Your task to perform on an android device: Search for a dining table on Crate & Barrel Image 0: 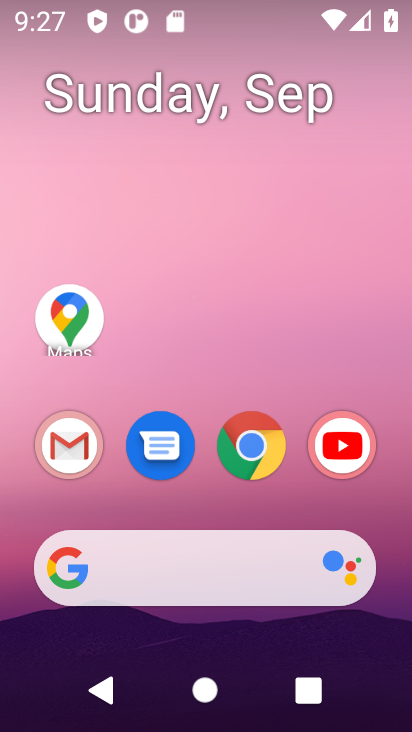
Step 0: drag from (202, 462) to (160, 18)
Your task to perform on an android device: Search for a dining table on Crate & Barrel Image 1: 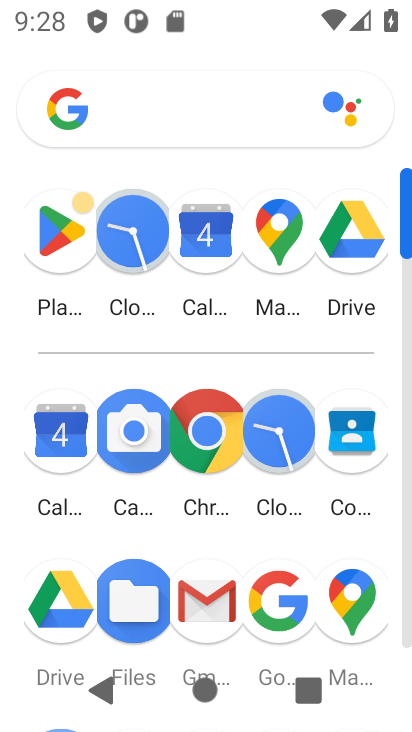
Step 1: click (197, 445)
Your task to perform on an android device: Search for a dining table on Crate & Barrel Image 2: 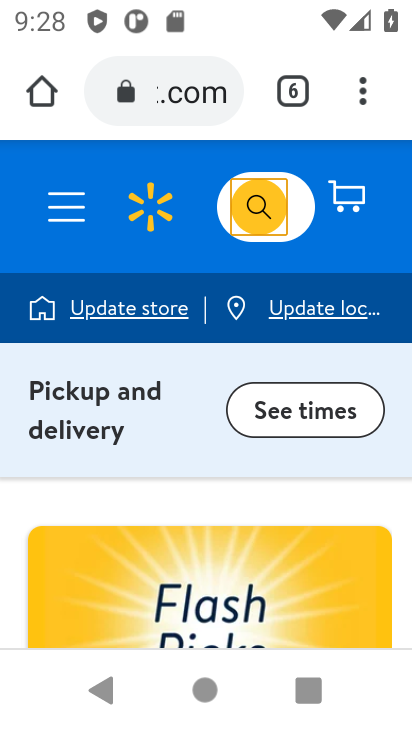
Step 2: click (189, 89)
Your task to perform on an android device: Search for a dining table on Crate & Barrel Image 3: 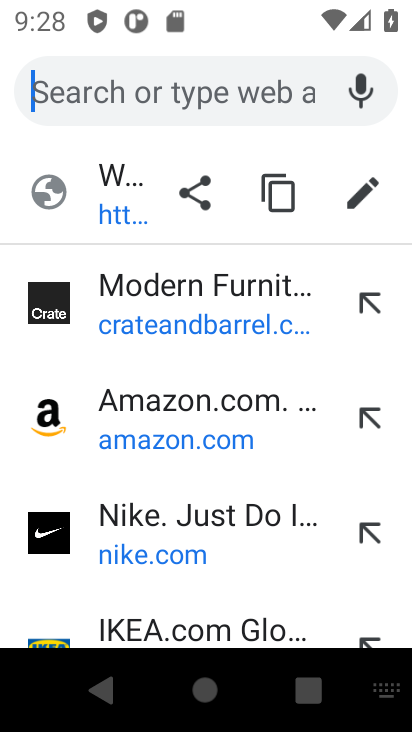
Step 3: type "Crate & Barrel"
Your task to perform on an android device: Search for a dining table on Crate & Barrel Image 4: 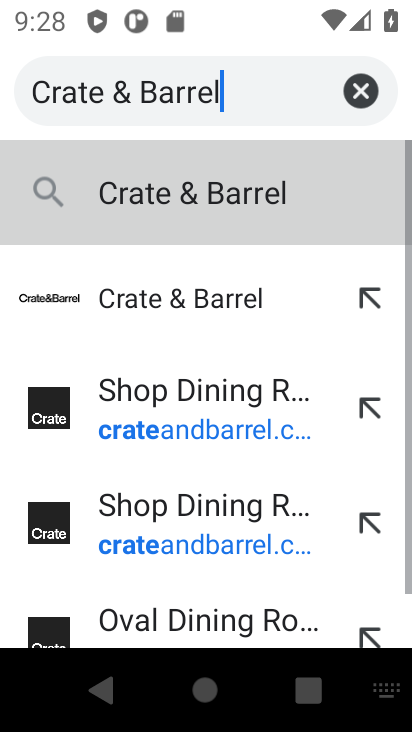
Step 4: press enter
Your task to perform on an android device: Search for a dining table on Crate & Barrel Image 5: 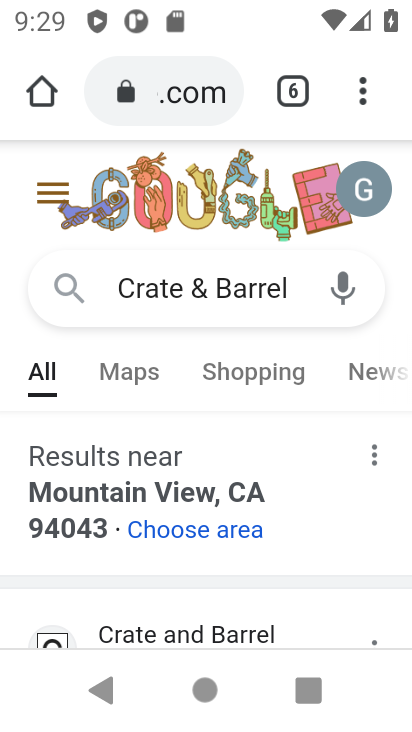
Step 5: drag from (148, 533) to (232, 243)
Your task to perform on an android device: Search for a dining table on Crate & Barrel Image 6: 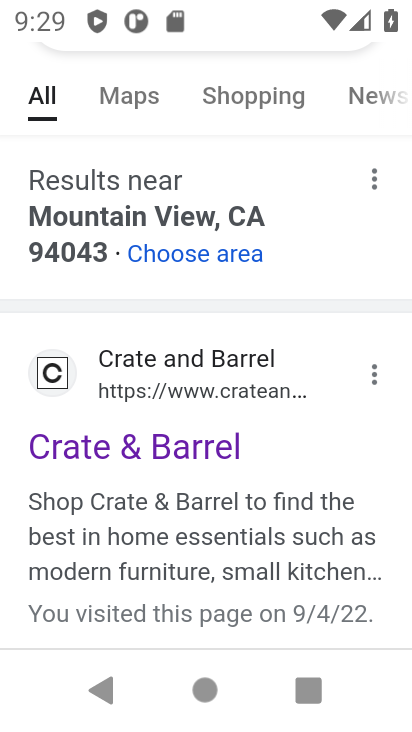
Step 6: click (176, 448)
Your task to perform on an android device: Search for a dining table on Crate & Barrel Image 7: 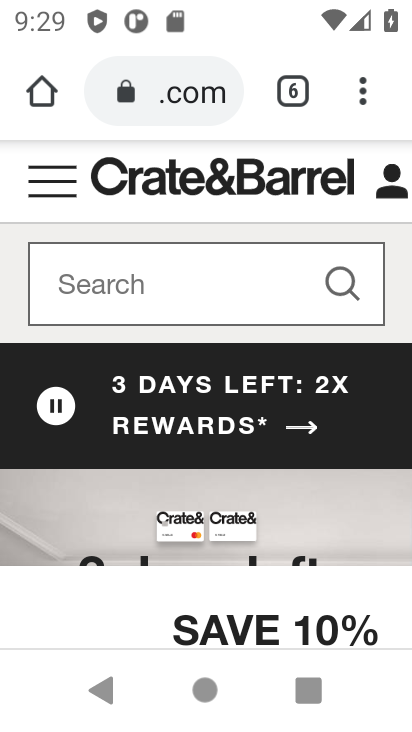
Step 7: click (232, 284)
Your task to perform on an android device: Search for a dining table on Crate & Barrel Image 8: 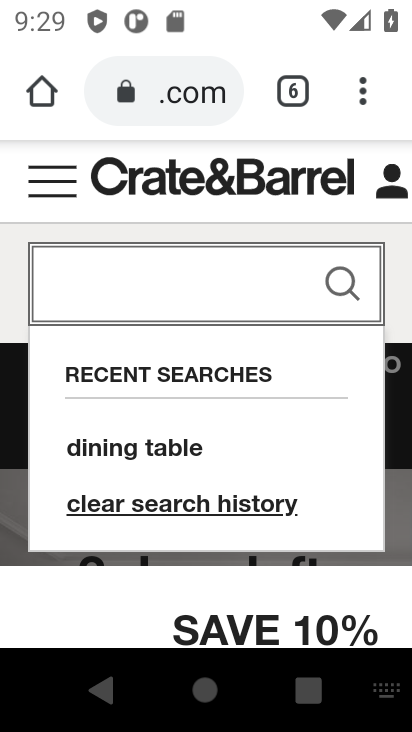
Step 8: press enter
Your task to perform on an android device: Search for a dining table on Crate & Barrel Image 9: 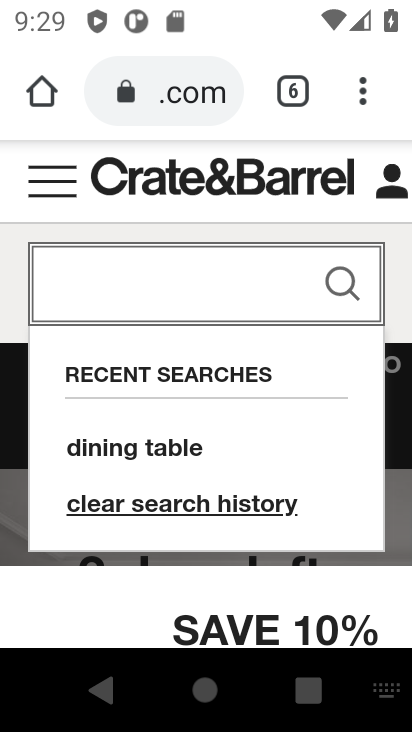
Step 9: type "dining table"
Your task to perform on an android device: Search for a dining table on Crate & Barrel Image 10: 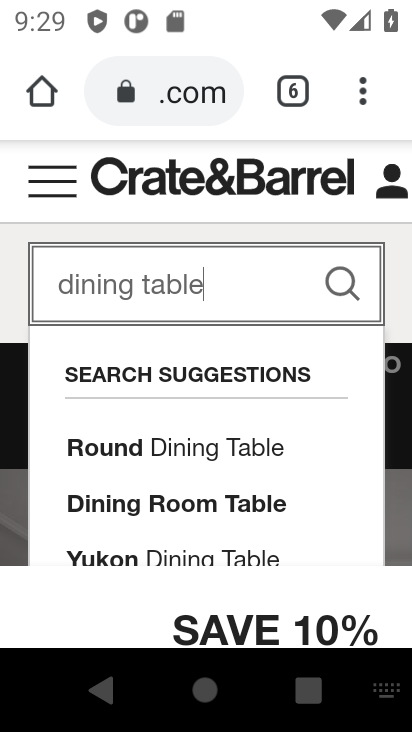
Step 10: press enter
Your task to perform on an android device: Search for a dining table on Crate & Barrel Image 11: 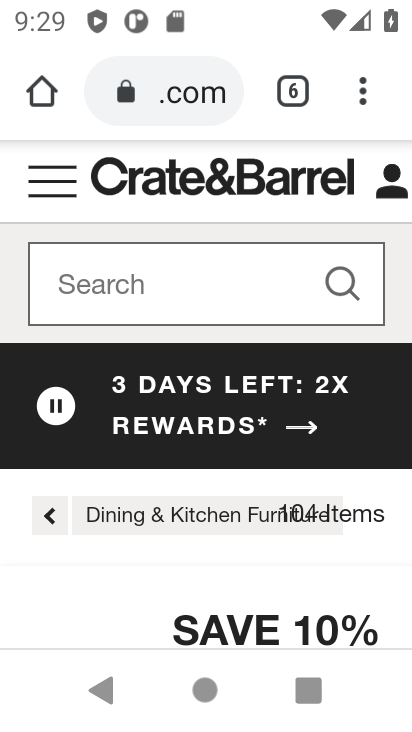
Step 11: drag from (318, 436) to (326, 301)
Your task to perform on an android device: Search for a dining table on Crate & Barrel Image 12: 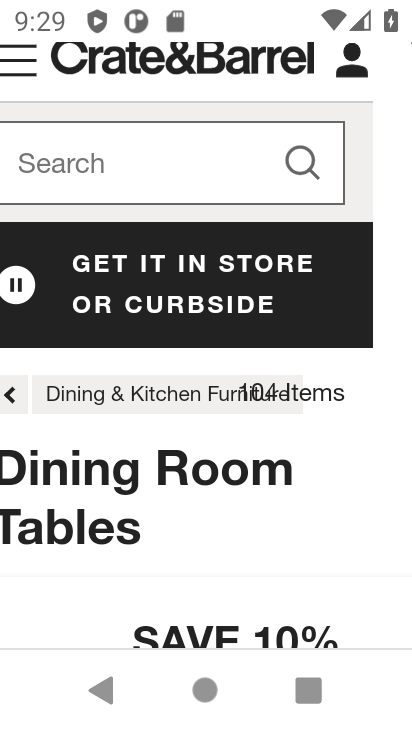
Step 12: drag from (309, 313) to (335, 245)
Your task to perform on an android device: Search for a dining table on Crate & Barrel Image 13: 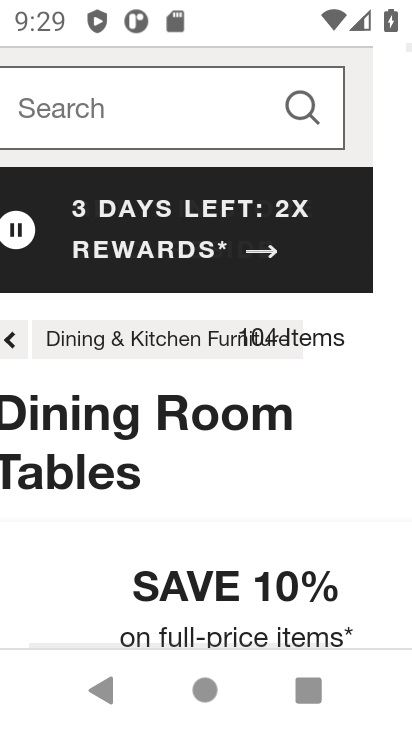
Step 13: drag from (276, 586) to (303, 241)
Your task to perform on an android device: Search for a dining table on Crate & Barrel Image 14: 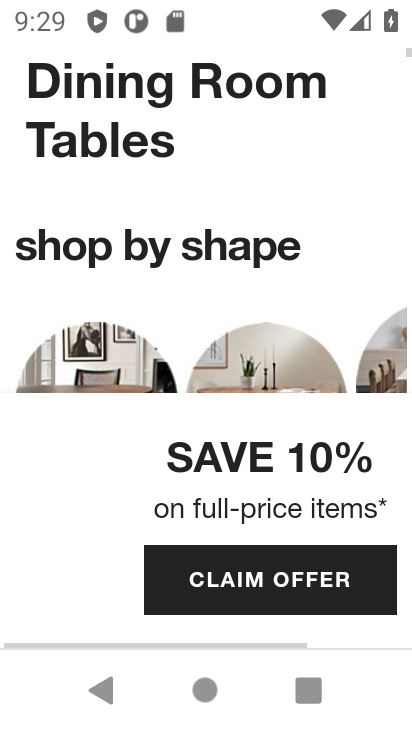
Step 14: drag from (258, 601) to (345, 217)
Your task to perform on an android device: Search for a dining table on Crate & Barrel Image 15: 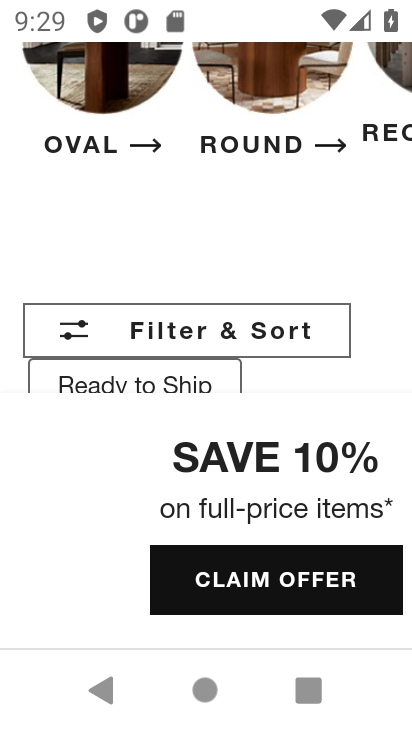
Step 15: drag from (354, 181) to (226, 310)
Your task to perform on an android device: Search for a dining table on Crate & Barrel Image 16: 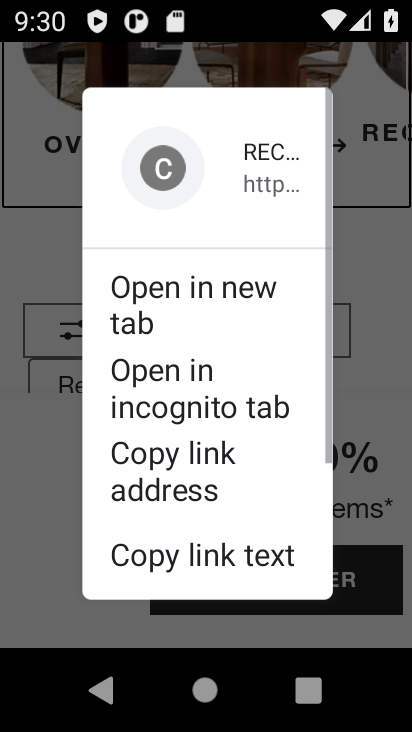
Step 16: drag from (77, 576) to (193, 293)
Your task to perform on an android device: Search for a dining table on Crate & Barrel Image 17: 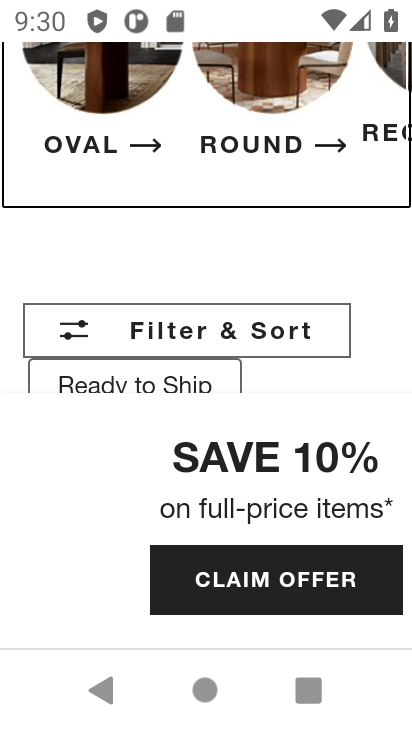
Step 17: drag from (270, 419) to (298, 266)
Your task to perform on an android device: Search for a dining table on Crate & Barrel Image 18: 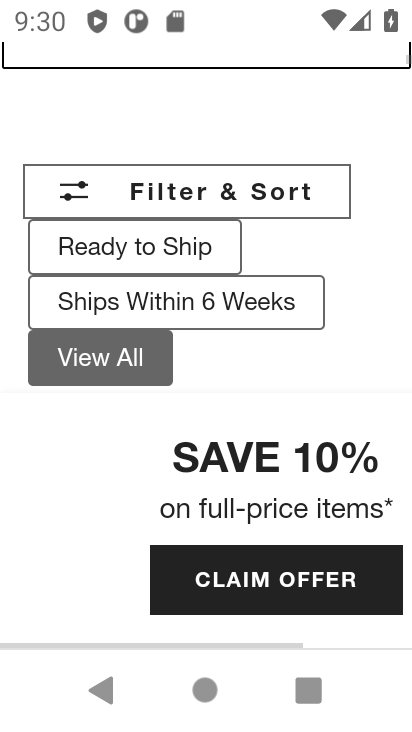
Step 18: click (120, 362)
Your task to perform on an android device: Search for a dining table on Crate & Barrel Image 19: 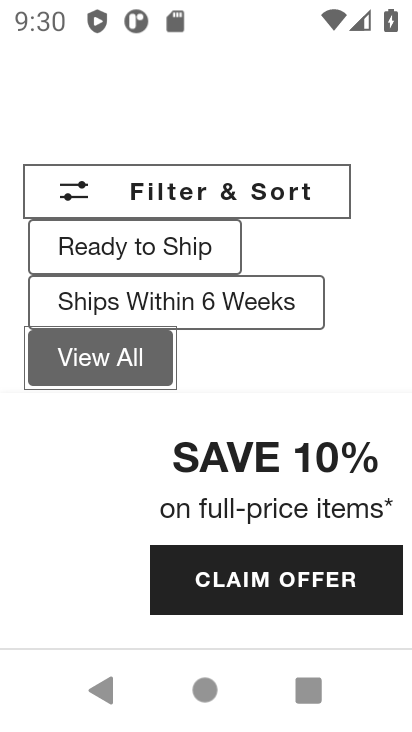
Step 19: click (120, 363)
Your task to perform on an android device: Search for a dining table on Crate & Barrel Image 20: 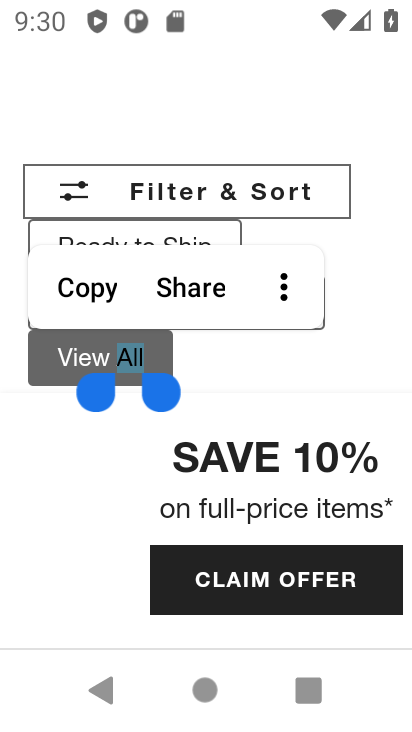
Step 20: click (93, 352)
Your task to perform on an android device: Search for a dining table on Crate & Barrel Image 21: 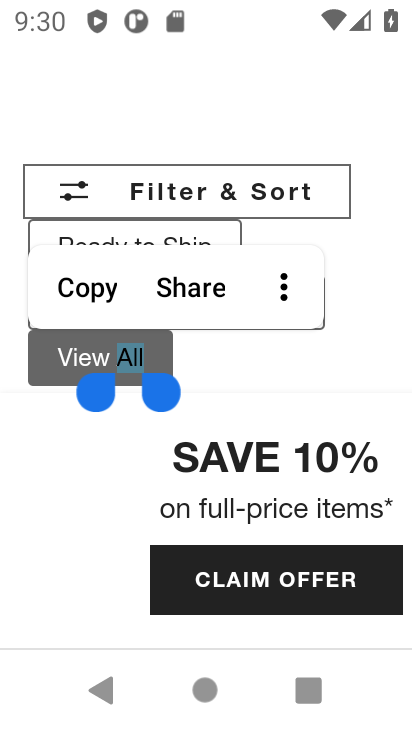
Step 21: click (86, 358)
Your task to perform on an android device: Search for a dining table on Crate & Barrel Image 22: 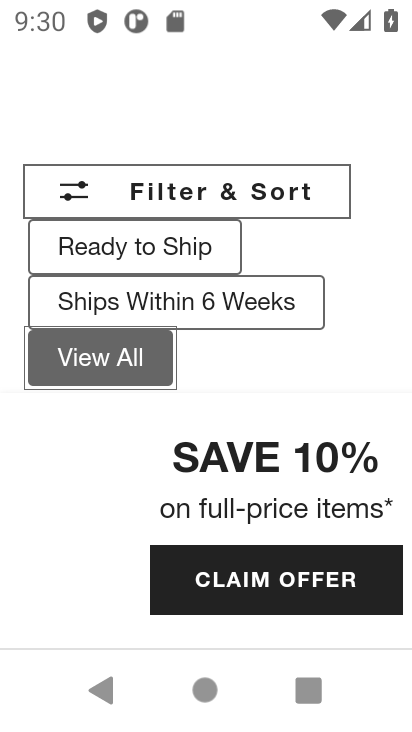
Step 22: click (199, 226)
Your task to perform on an android device: Search for a dining table on Crate & Barrel Image 23: 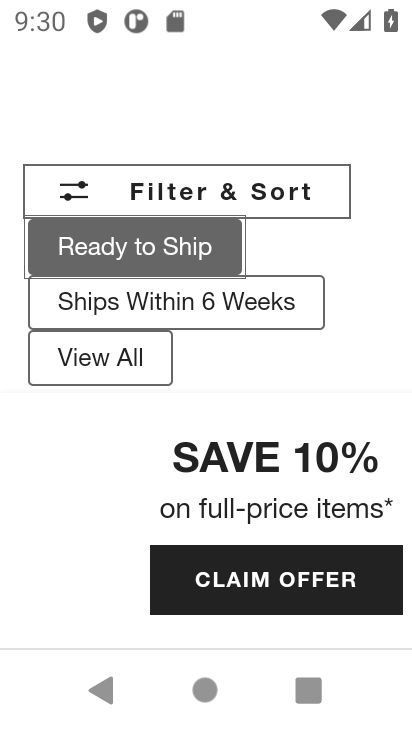
Step 23: drag from (266, 108) to (303, 541)
Your task to perform on an android device: Search for a dining table on Crate & Barrel Image 24: 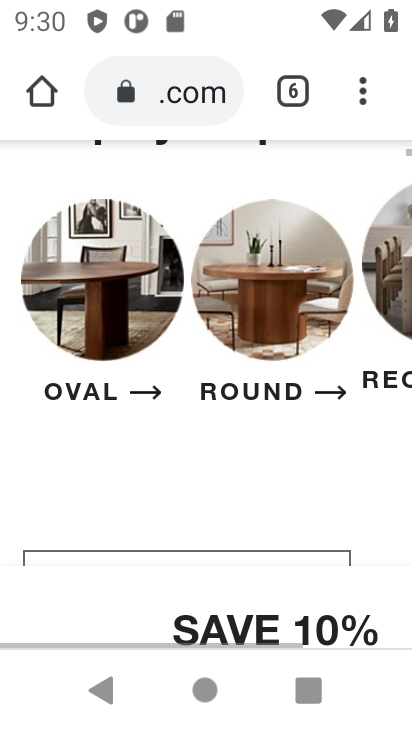
Step 24: drag from (255, 145) to (268, 442)
Your task to perform on an android device: Search for a dining table on Crate & Barrel Image 25: 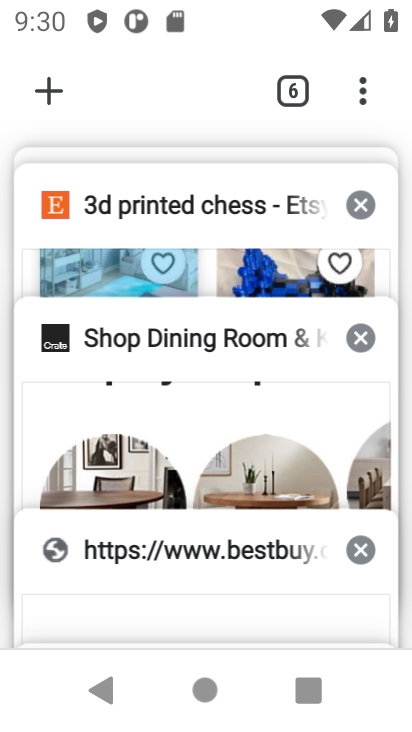
Step 25: click (137, 397)
Your task to perform on an android device: Search for a dining table on Crate & Barrel Image 26: 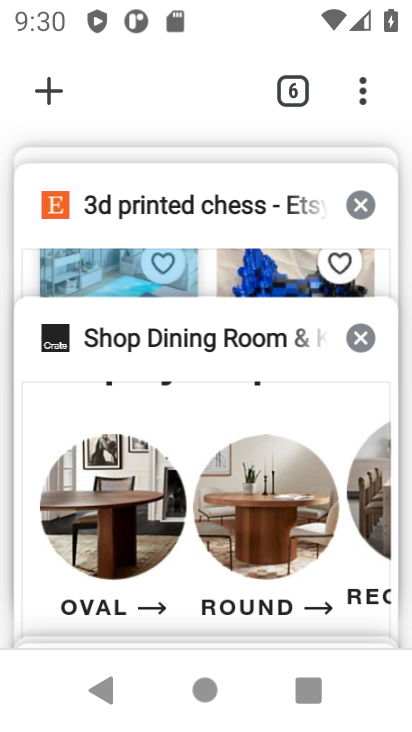
Step 26: click (138, 503)
Your task to perform on an android device: Search for a dining table on Crate & Barrel Image 27: 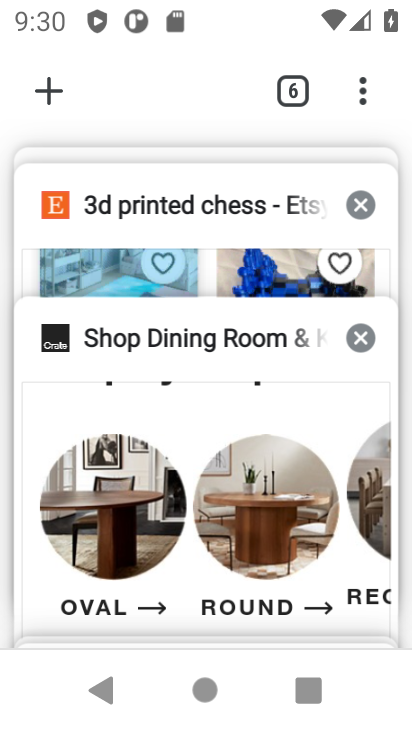
Step 27: click (154, 547)
Your task to perform on an android device: Search for a dining table on Crate & Barrel Image 28: 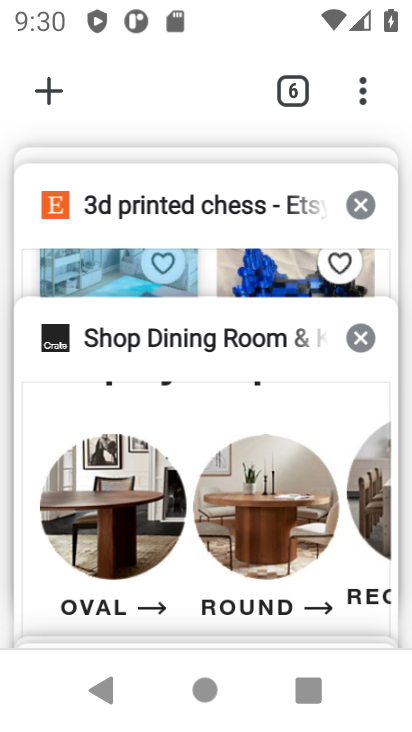
Step 28: click (167, 492)
Your task to perform on an android device: Search for a dining table on Crate & Barrel Image 29: 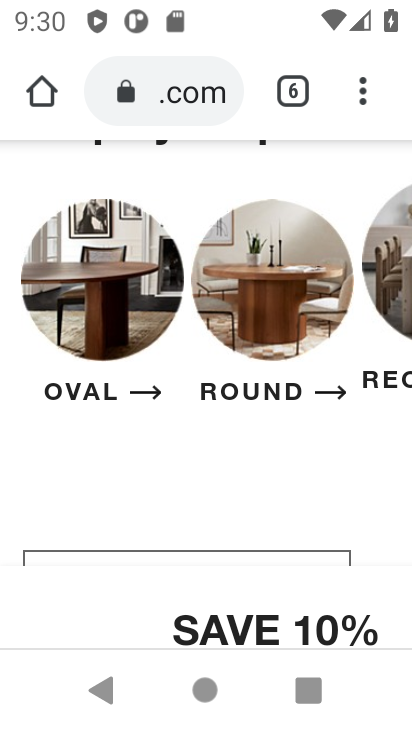
Step 29: click (106, 306)
Your task to perform on an android device: Search for a dining table on Crate & Barrel Image 30: 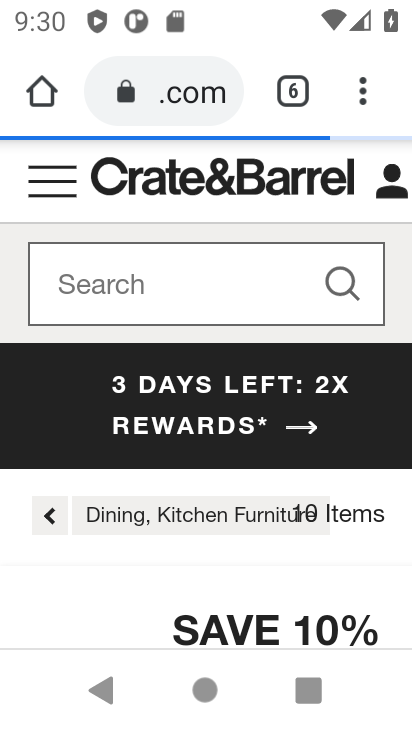
Step 30: drag from (166, 589) to (212, 241)
Your task to perform on an android device: Search for a dining table on Crate & Barrel Image 31: 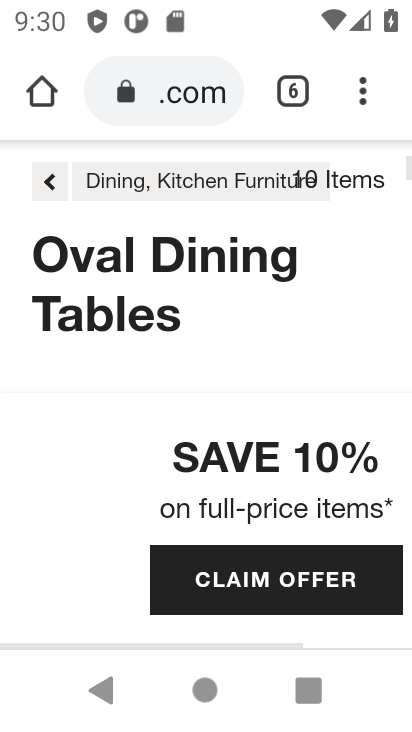
Step 31: click (266, 587)
Your task to perform on an android device: Search for a dining table on Crate & Barrel Image 32: 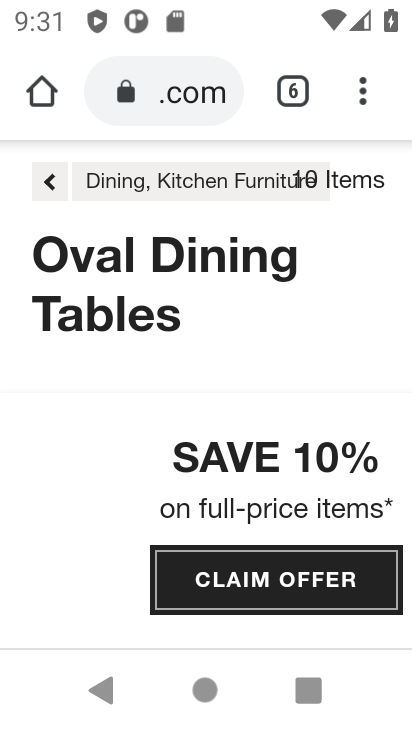
Step 32: click (292, 581)
Your task to perform on an android device: Search for a dining table on Crate & Barrel Image 33: 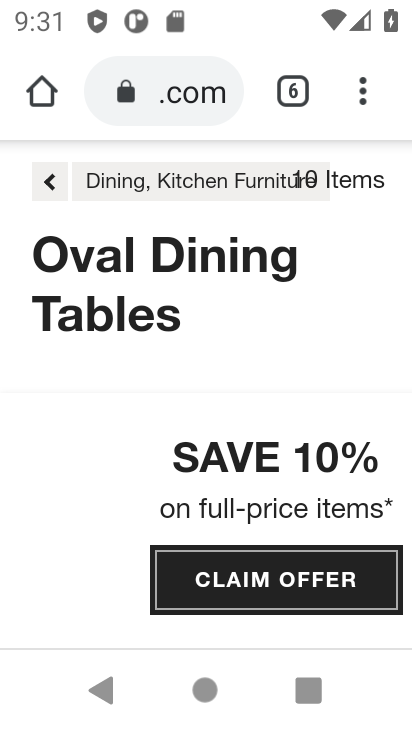
Step 33: task complete